Your task to perform on an android device: turn pop-ups on in chrome Image 0: 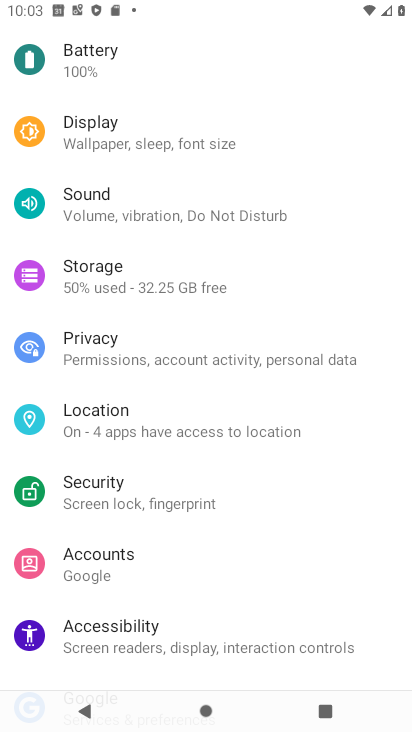
Step 0: press home button
Your task to perform on an android device: turn pop-ups on in chrome Image 1: 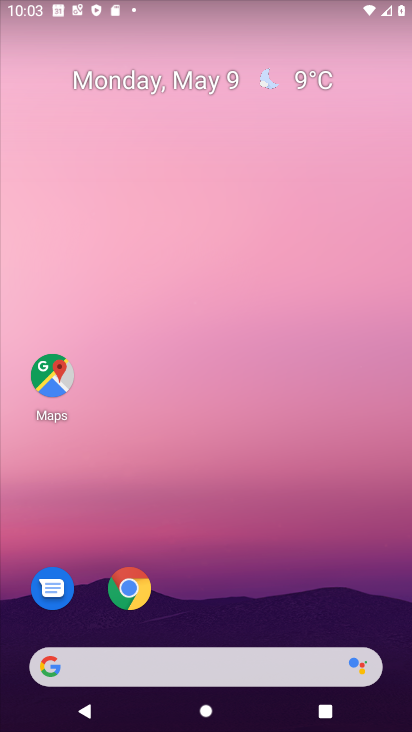
Step 1: click (133, 589)
Your task to perform on an android device: turn pop-ups on in chrome Image 2: 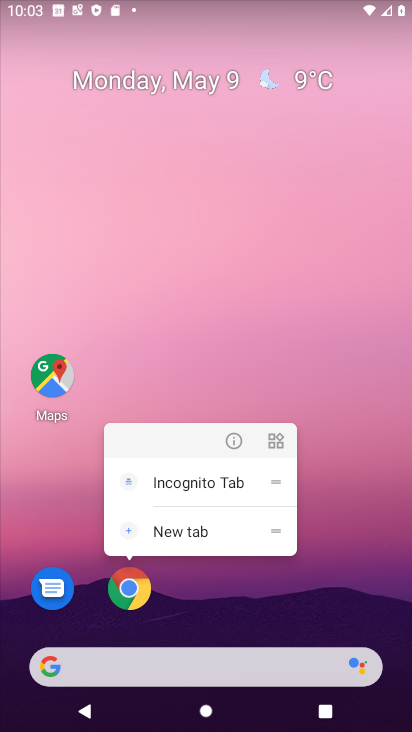
Step 2: click (120, 588)
Your task to perform on an android device: turn pop-ups on in chrome Image 3: 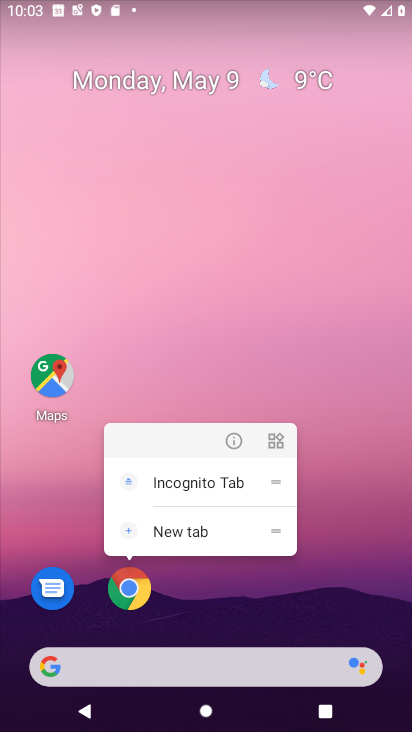
Step 3: click (126, 593)
Your task to perform on an android device: turn pop-ups on in chrome Image 4: 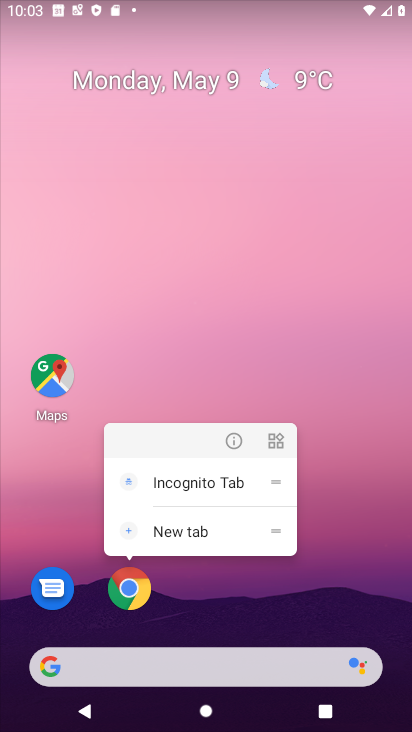
Step 4: click (126, 593)
Your task to perform on an android device: turn pop-ups on in chrome Image 5: 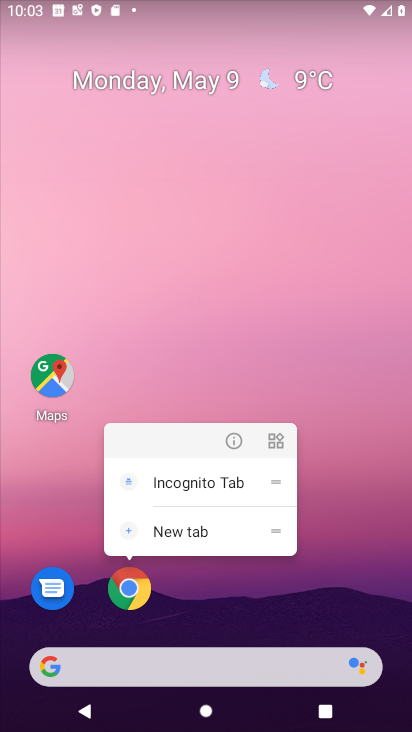
Step 5: click (130, 597)
Your task to perform on an android device: turn pop-ups on in chrome Image 6: 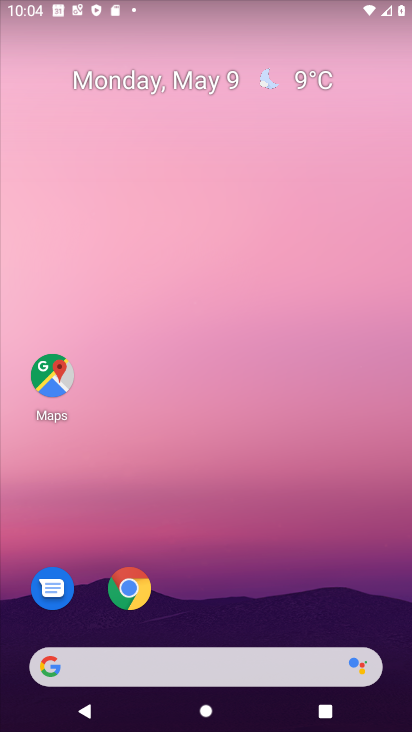
Step 6: click (126, 588)
Your task to perform on an android device: turn pop-ups on in chrome Image 7: 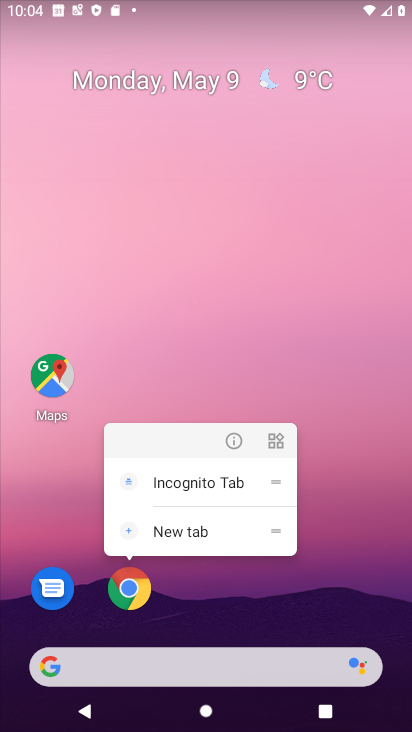
Step 7: drag from (147, 663) to (17, 99)
Your task to perform on an android device: turn pop-ups on in chrome Image 8: 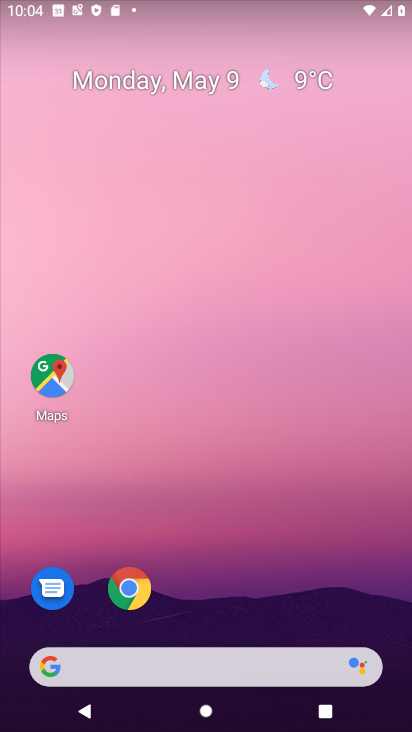
Step 8: drag from (242, 601) to (67, 146)
Your task to perform on an android device: turn pop-ups on in chrome Image 9: 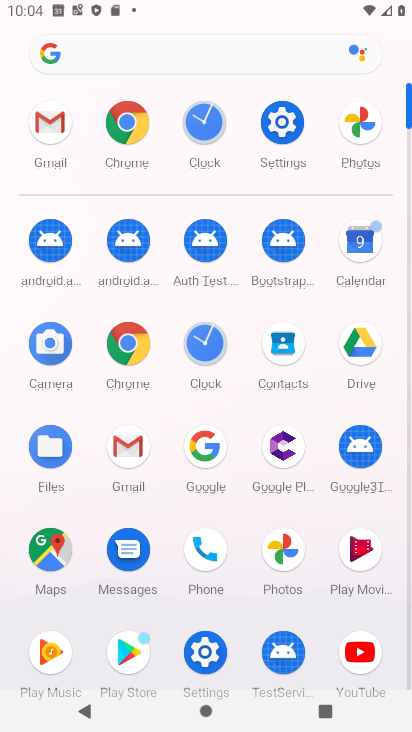
Step 9: click (111, 139)
Your task to perform on an android device: turn pop-ups on in chrome Image 10: 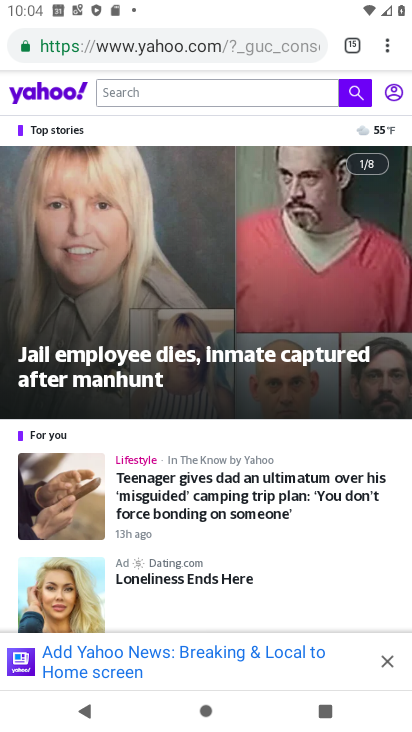
Step 10: drag from (385, 49) to (248, 548)
Your task to perform on an android device: turn pop-ups on in chrome Image 11: 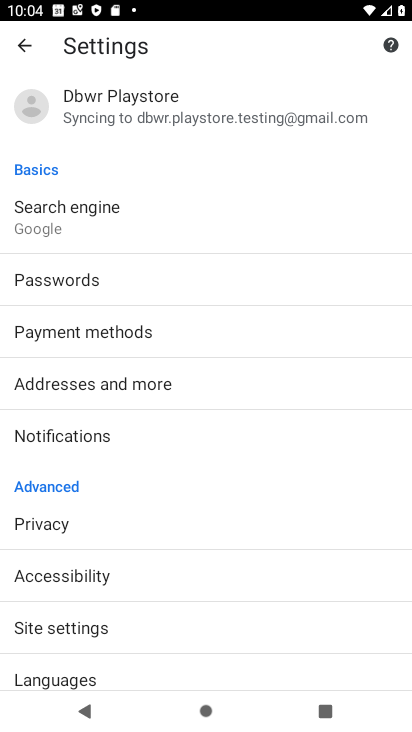
Step 11: click (51, 628)
Your task to perform on an android device: turn pop-ups on in chrome Image 12: 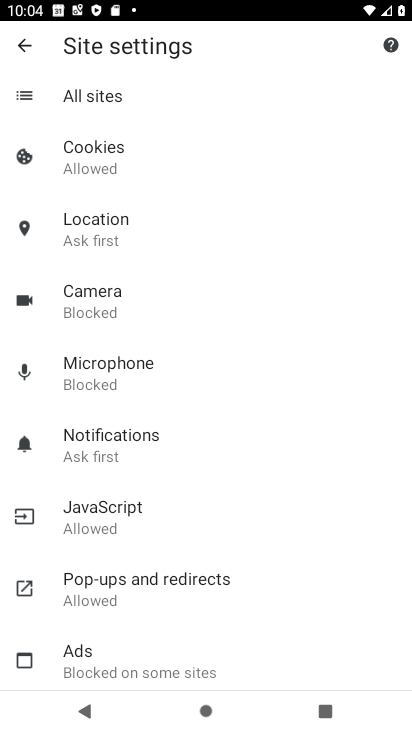
Step 12: click (103, 590)
Your task to perform on an android device: turn pop-ups on in chrome Image 13: 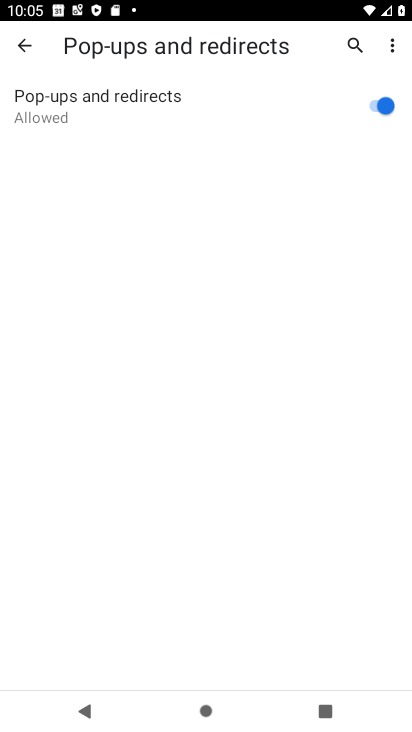
Step 13: task complete